Your task to perform on an android device: open chrome and create a bookmark for the current page Image 0: 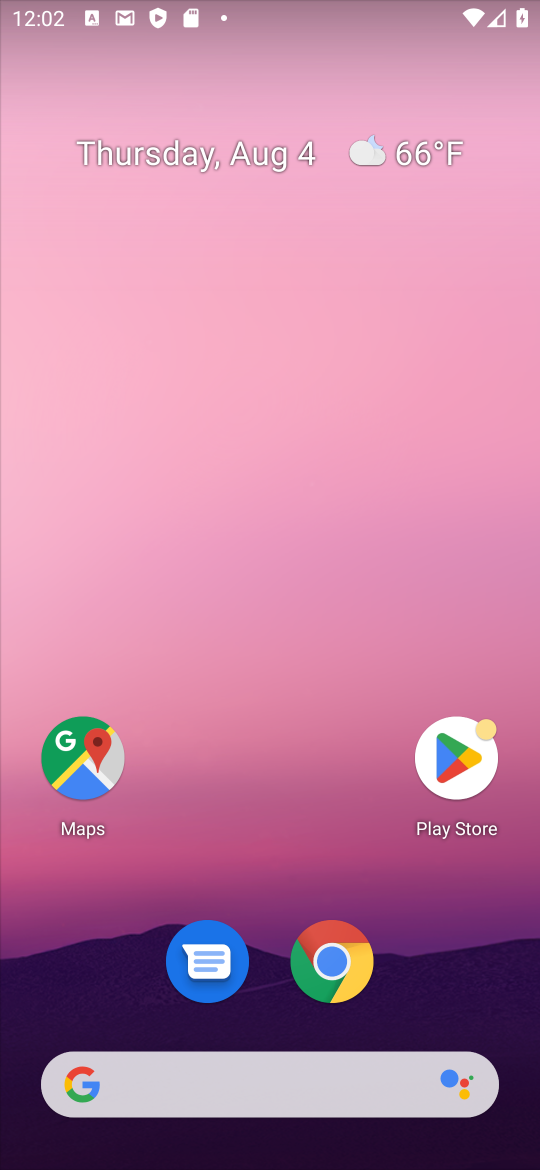
Step 0: click (350, 949)
Your task to perform on an android device: open chrome and create a bookmark for the current page Image 1: 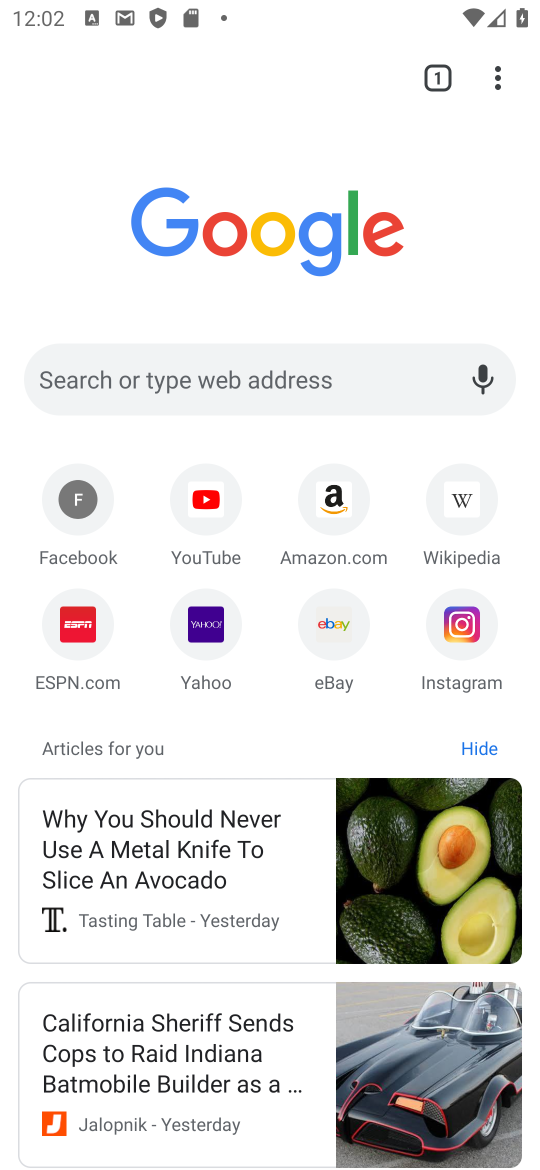
Step 1: click (494, 82)
Your task to perform on an android device: open chrome and create a bookmark for the current page Image 2: 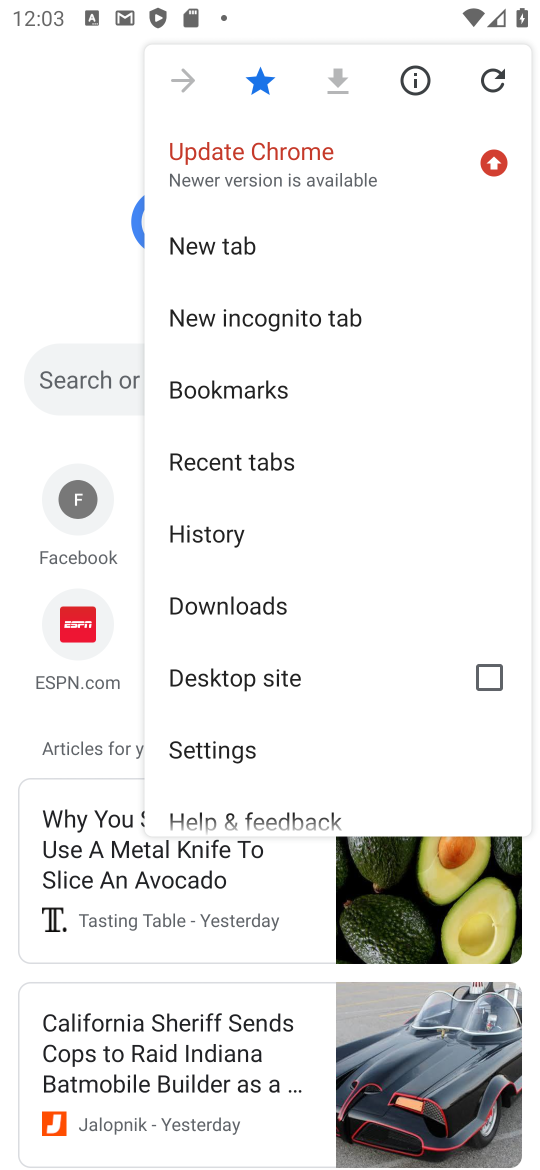
Step 2: task complete